Your task to perform on an android device: What's the weather going to be this weekend? Image 0: 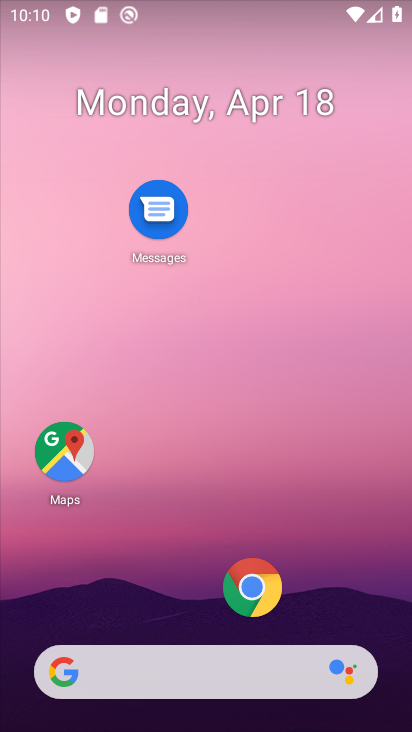
Step 0: click (191, 669)
Your task to perform on an android device: What's the weather going to be this weekend? Image 1: 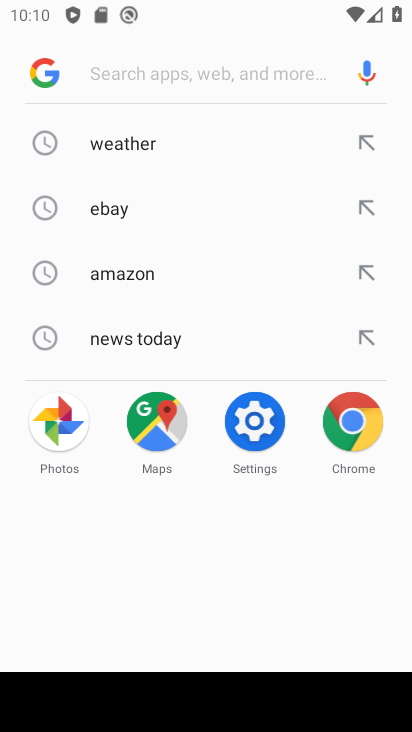
Step 1: type "What's the weather going to be this weekend?"
Your task to perform on an android device: What's the weather going to be this weekend? Image 2: 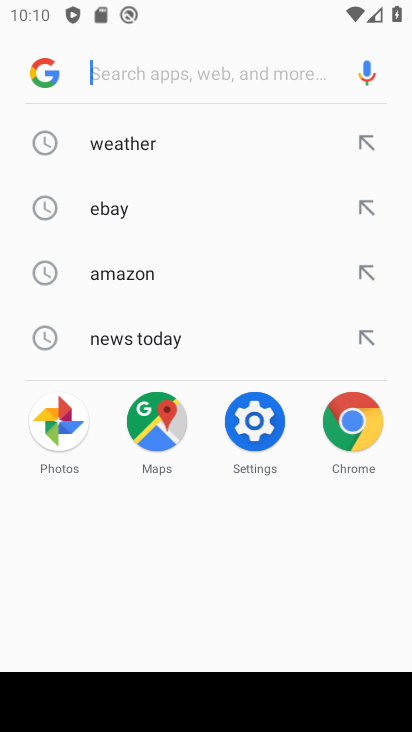
Step 2: click (216, 81)
Your task to perform on an android device: What's the weather going to be this weekend? Image 3: 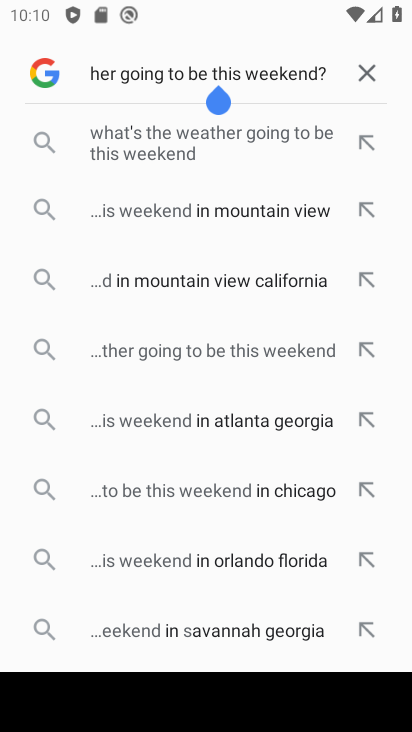
Step 3: click (226, 140)
Your task to perform on an android device: What's the weather going to be this weekend? Image 4: 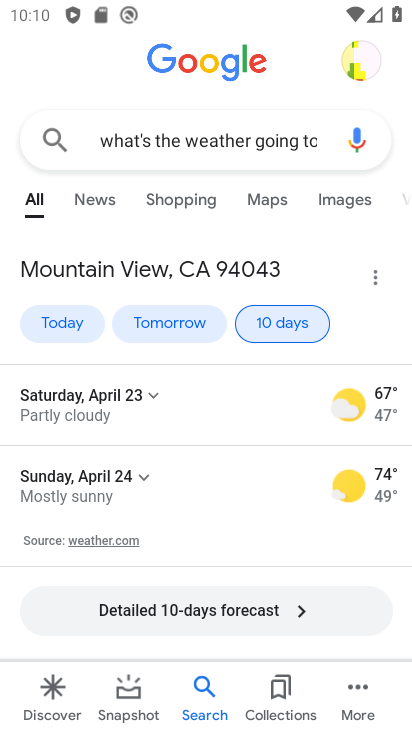
Step 4: task complete